Your task to perform on an android device: Open my contact list Image 0: 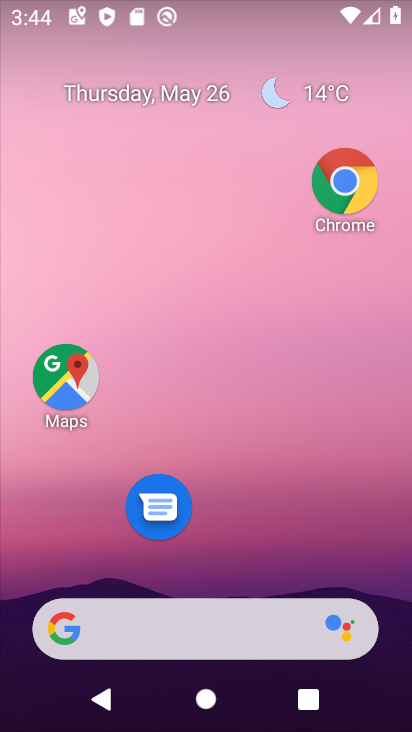
Step 0: drag from (278, 577) to (289, 100)
Your task to perform on an android device: Open my contact list Image 1: 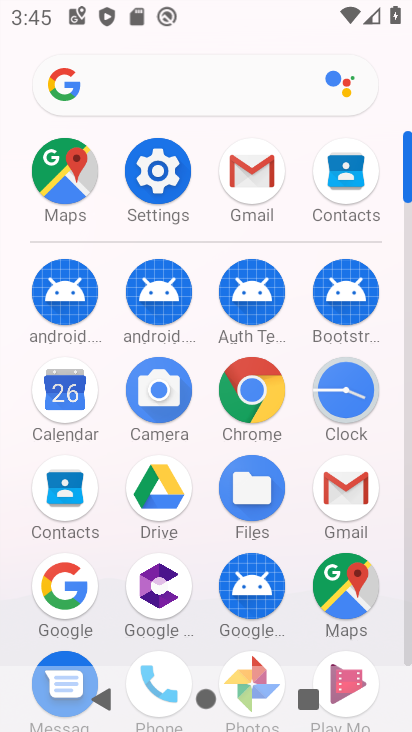
Step 1: click (68, 500)
Your task to perform on an android device: Open my contact list Image 2: 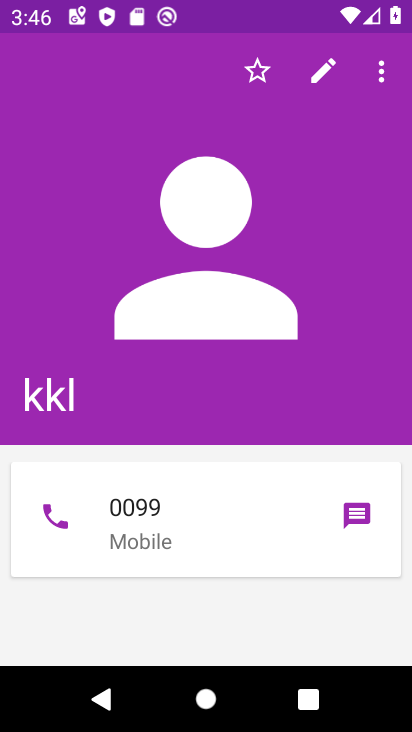
Step 2: task complete